Your task to perform on an android device: open app "Cash App" Image 0: 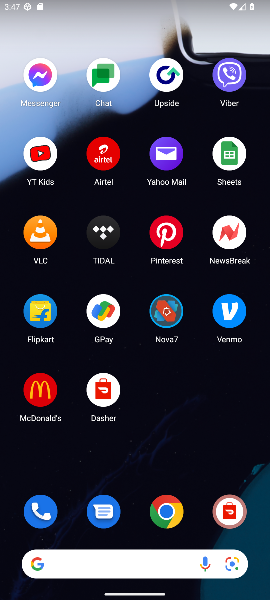
Step 0: drag from (196, 487) to (163, 124)
Your task to perform on an android device: open app "Cash App" Image 1: 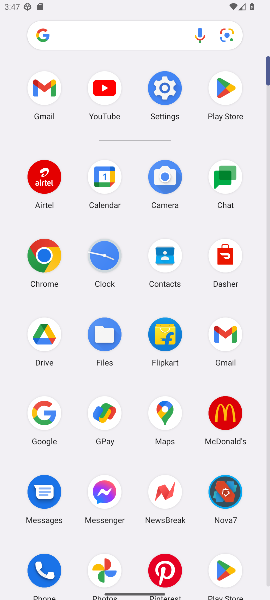
Step 1: click (225, 110)
Your task to perform on an android device: open app "Cash App" Image 2: 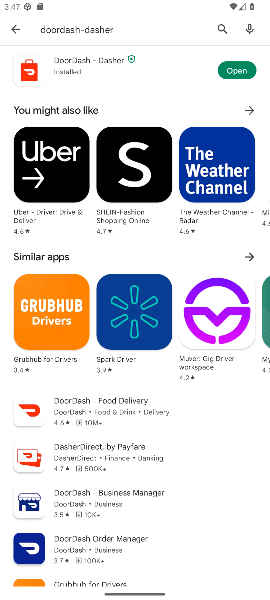
Step 2: click (14, 25)
Your task to perform on an android device: open app "Cash App" Image 3: 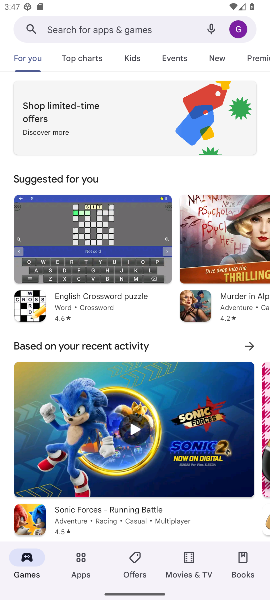
Step 3: click (93, 25)
Your task to perform on an android device: open app "Cash App" Image 4: 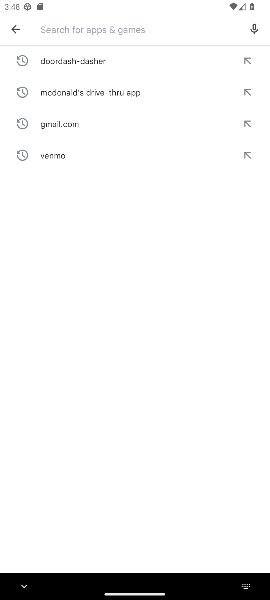
Step 4: type "cash app"
Your task to perform on an android device: open app "Cash App" Image 5: 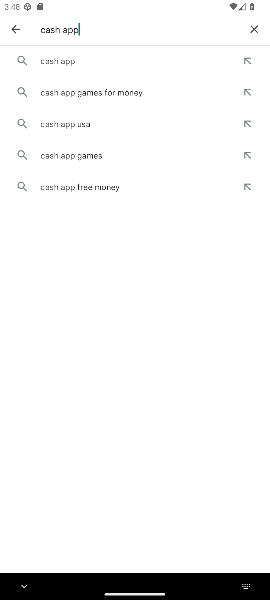
Step 5: click (49, 67)
Your task to perform on an android device: open app "Cash App" Image 6: 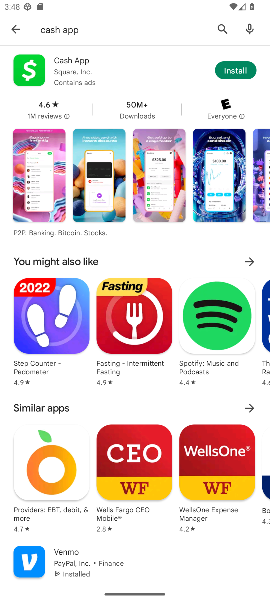
Step 6: click (229, 65)
Your task to perform on an android device: open app "Cash App" Image 7: 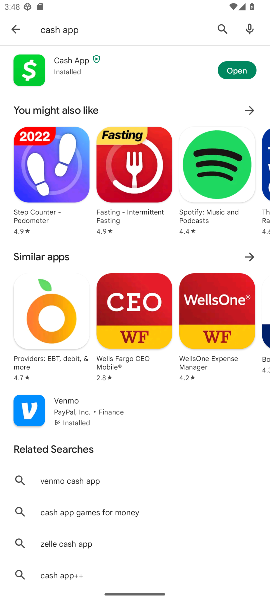
Step 7: click (231, 75)
Your task to perform on an android device: open app "Cash App" Image 8: 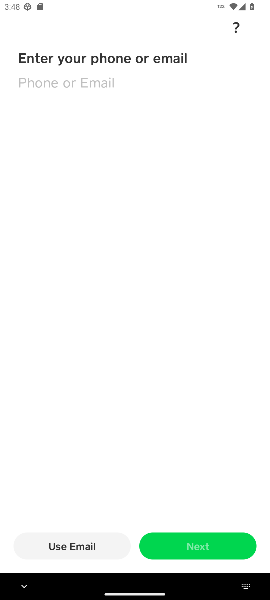
Step 8: task complete